Your task to perform on an android device: Open battery settings Image 0: 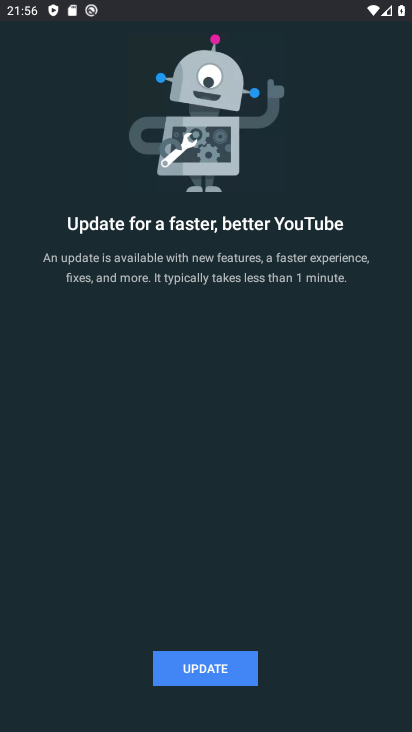
Step 0: press home button
Your task to perform on an android device: Open battery settings Image 1: 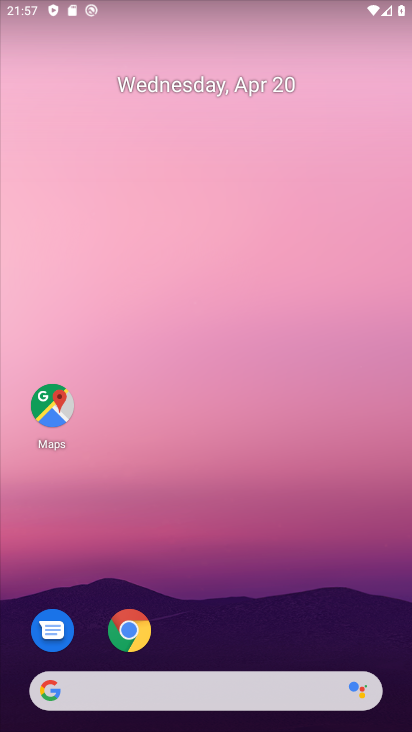
Step 1: drag from (276, 650) to (235, 160)
Your task to perform on an android device: Open battery settings Image 2: 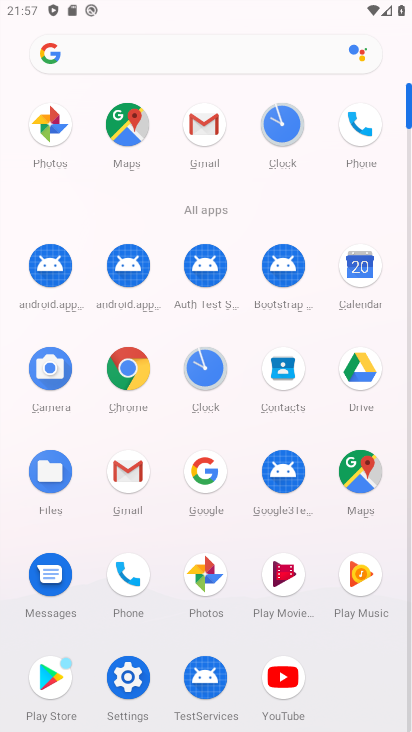
Step 2: click (126, 687)
Your task to perform on an android device: Open battery settings Image 3: 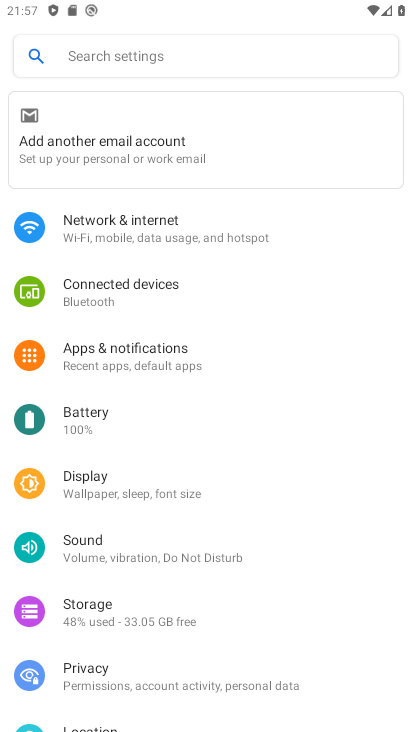
Step 3: click (141, 416)
Your task to perform on an android device: Open battery settings Image 4: 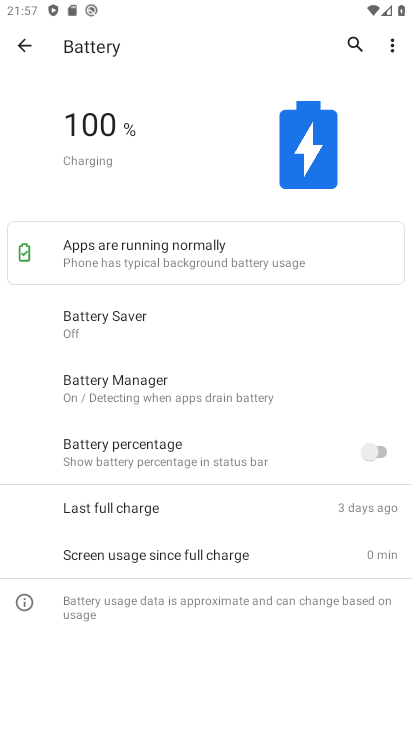
Step 4: task complete